Your task to perform on an android device: show emergency info Image 0: 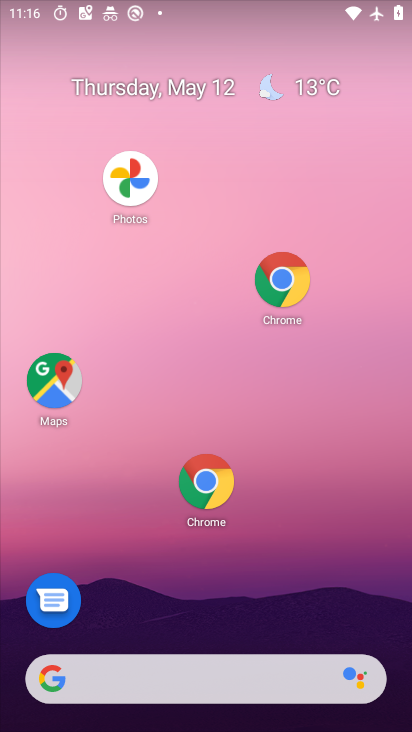
Step 0: drag from (330, 619) to (75, 70)
Your task to perform on an android device: show emergency info Image 1: 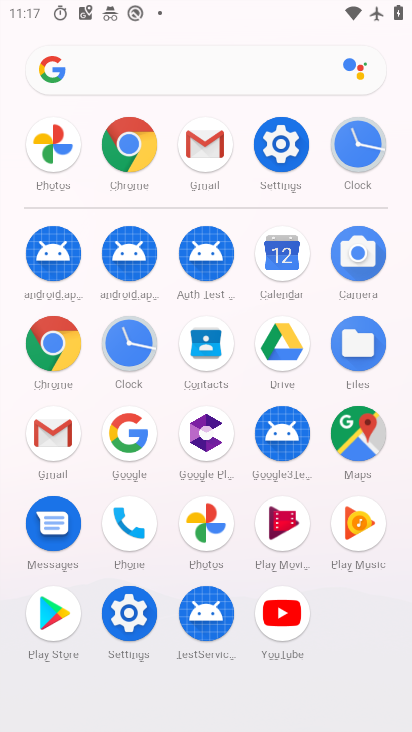
Step 1: click (133, 616)
Your task to perform on an android device: show emergency info Image 2: 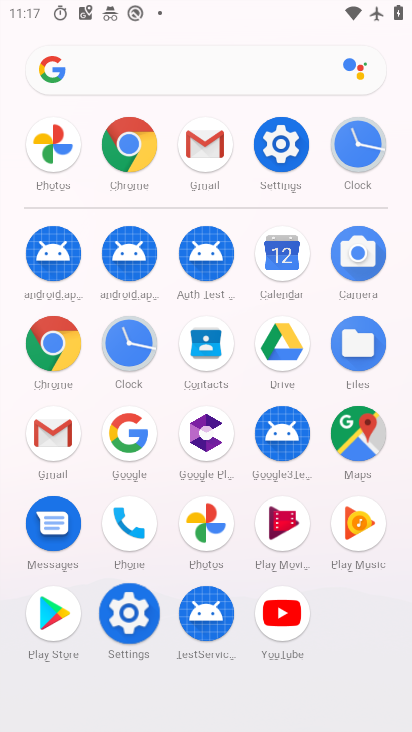
Step 2: click (133, 616)
Your task to perform on an android device: show emergency info Image 3: 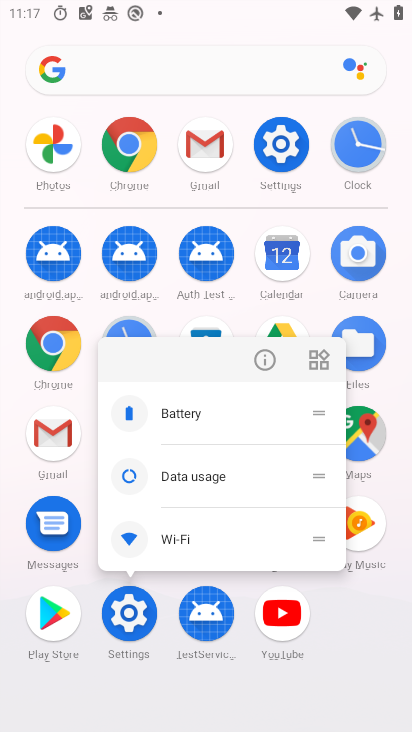
Step 3: click (127, 614)
Your task to perform on an android device: show emergency info Image 4: 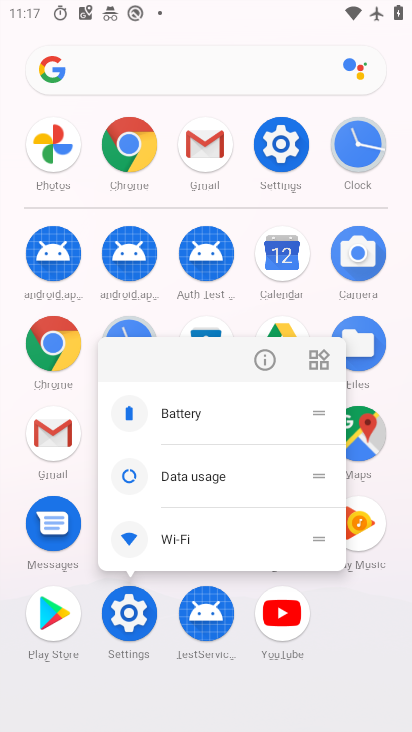
Step 4: click (135, 610)
Your task to perform on an android device: show emergency info Image 5: 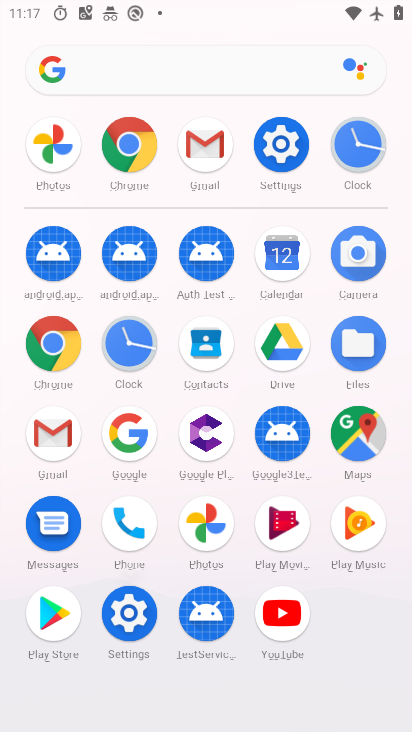
Step 5: click (134, 605)
Your task to perform on an android device: show emergency info Image 6: 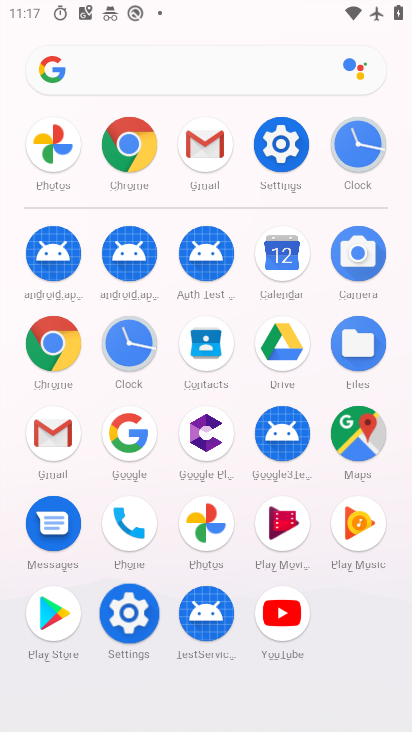
Step 6: click (134, 604)
Your task to perform on an android device: show emergency info Image 7: 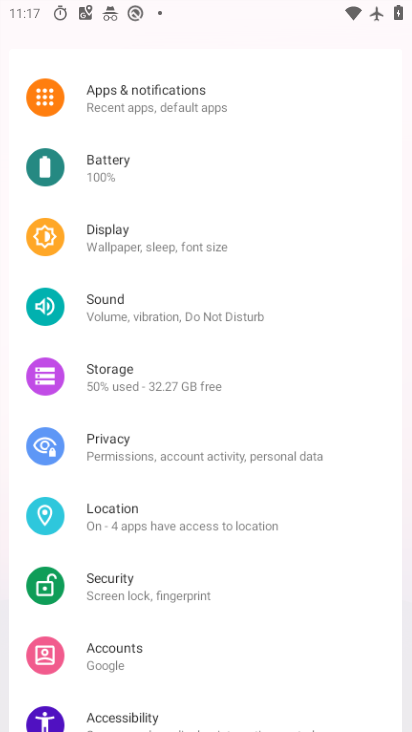
Step 7: click (126, 602)
Your task to perform on an android device: show emergency info Image 8: 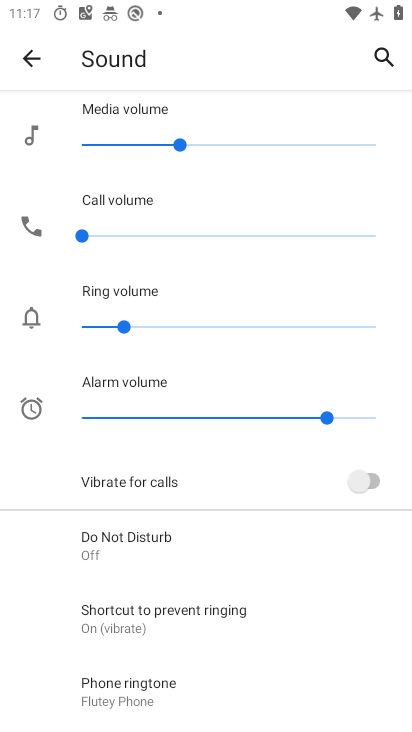
Step 8: click (27, 64)
Your task to perform on an android device: show emergency info Image 9: 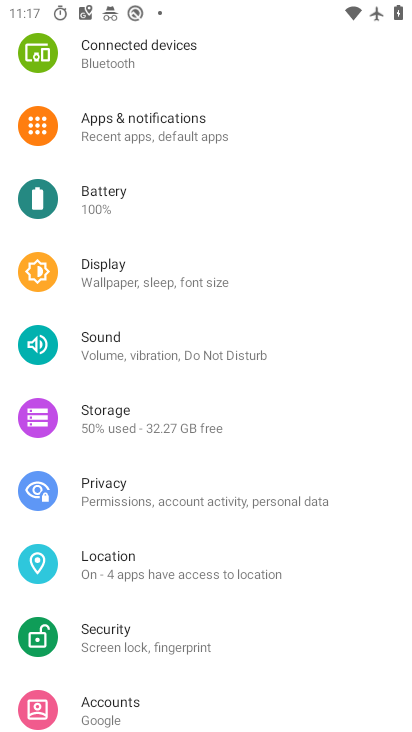
Step 9: drag from (136, 584) to (77, 188)
Your task to perform on an android device: show emergency info Image 10: 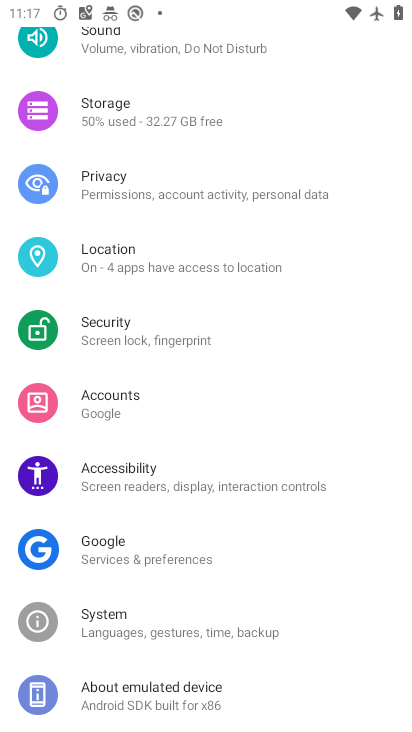
Step 10: drag from (132, 583) to (156, 168)
Your task to perform on an android device: show emergency info Image 11: 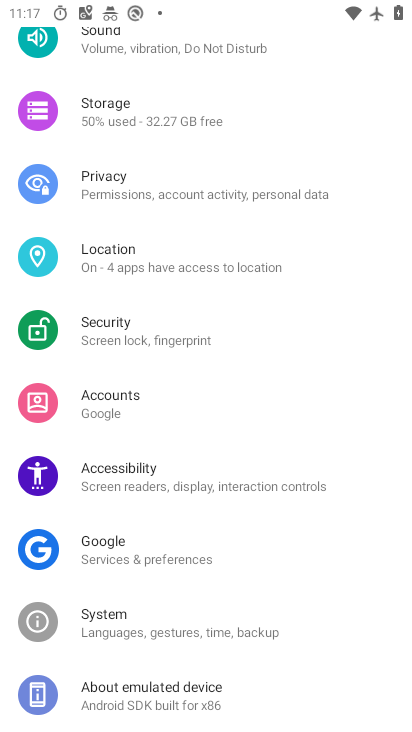
Step 11: click (132, 704)
Your task to perform on an android device: show emergency info Image 12: 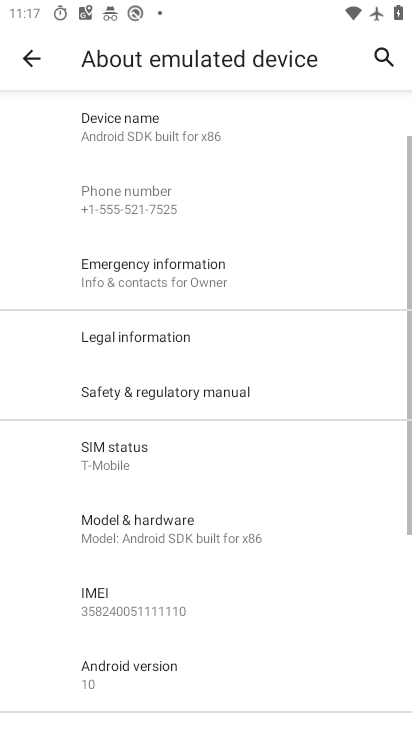
Step 12: task complete